Your task to perform on an android device: star an email in the gmail app Image 0: 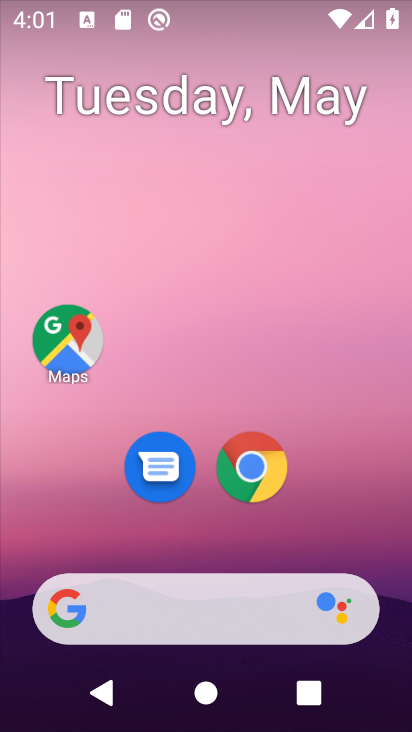
Step 0: click (47, 604)
Your task to perform on an android device: star an email in the gmail app Image 1: 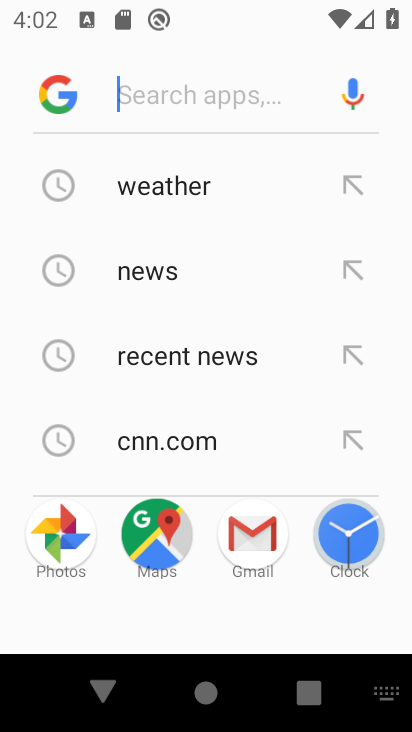
Step 1: press home button
Your task to perform on an android device: star an email in the gmail app Image 2: 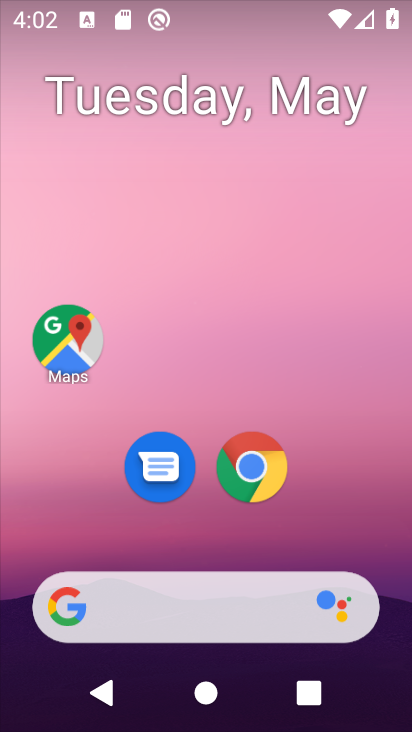
Step 2: drag from (323, 469) to (313, 59)
Your task to perform on an android device: star an email in the gmail app Image 3: 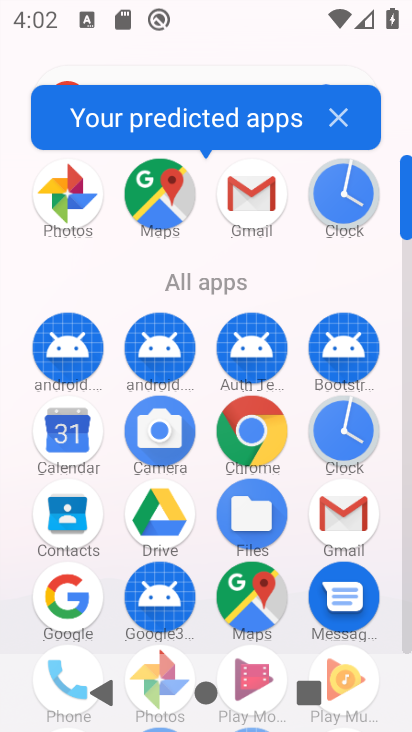
Step 3: click (243, 201)
Your task to perform on an android device: star an email in the gmail app Image 4: 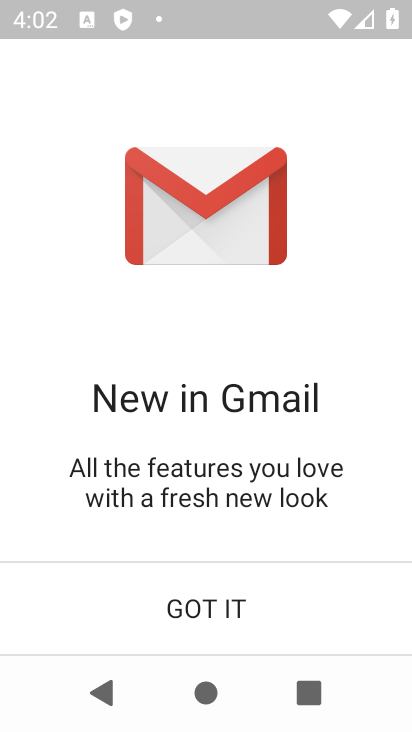
Step 4: click (235, 608)
Your task to perform on an android device: star an email in the gmail app Image 5: 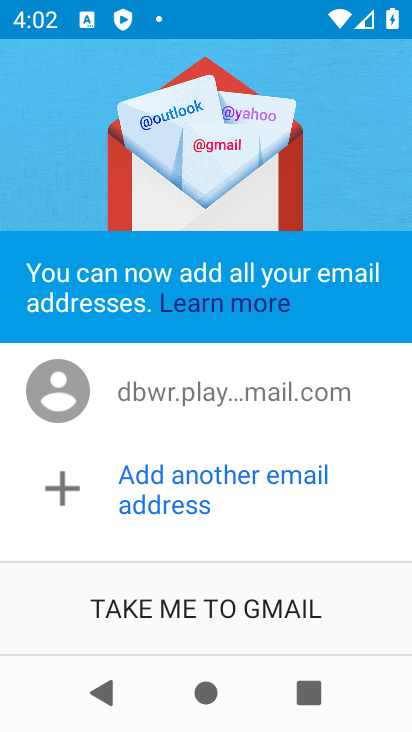
Step 5: click (234, 608)
Your task to perform on an android device: star an email in the gmail app Image 6: 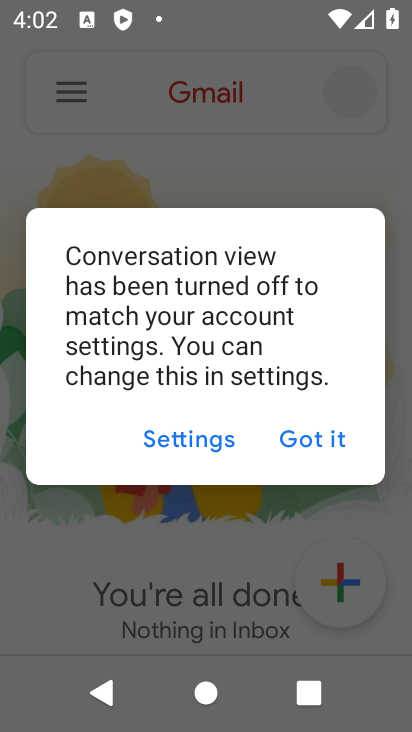
Step 6: click (321, 447)
Your task to perform on an android device: star an email in the gmail app Image 7: 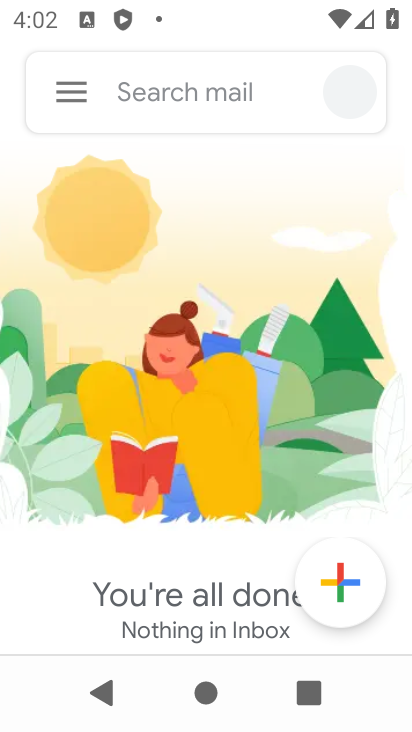
Step 7: click (69, 104)
Your task to perform on an android device: star an email in the gmail app Image 8: 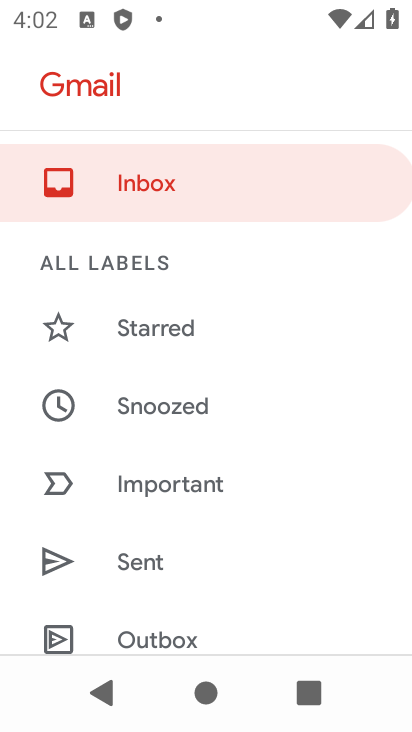
Step 8: click (214, 328)
Your task to perform on an android device: star an email in the gmail app Image 9: 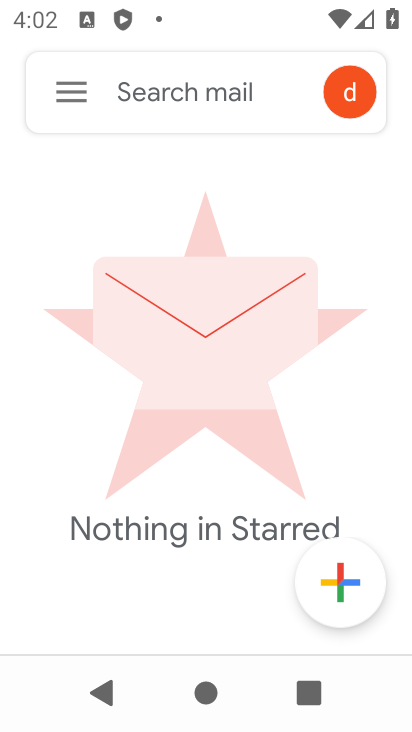
Step 9: task complete